Your task to perform on an android device: turn off airplane mode Image 0: 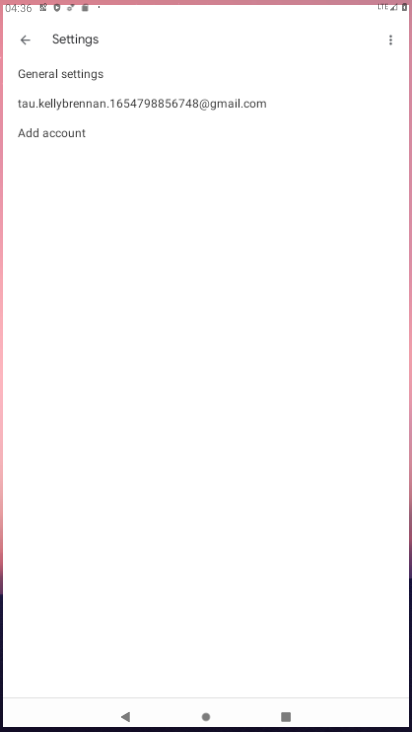
Step 0: drag from (242, 721) to (255, 138)
Your task to perform on an android device: turn off airplane mode Image 1: 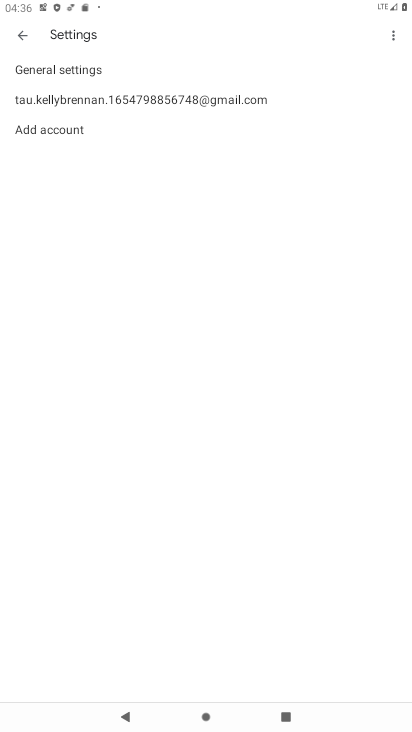
Step 1: press home button
Your task to perform on an android device: turn off airplane mode Image 2: 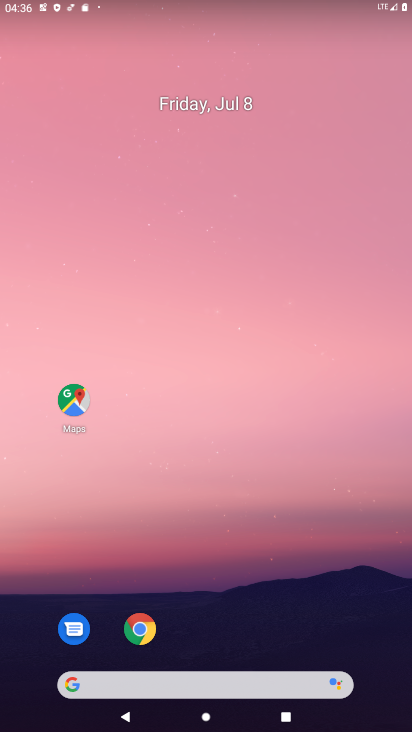
Step 2: drag from (240, 717) to (236, 157)
Your task to perform on an android device: turn off airplane mode Image 3: 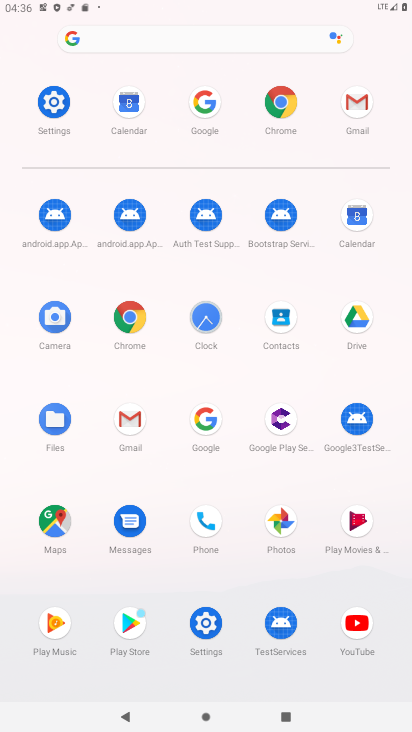
Step 3: click (55, 100)
Your task to perform on an android device: turn off airplane mode Image 4: 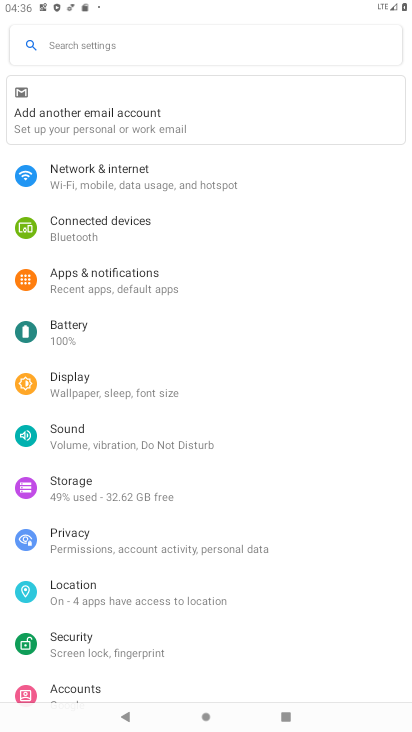
Step 4: click (80, 168)
Your task to perform on an android device: turn off airplane mode Image 5: 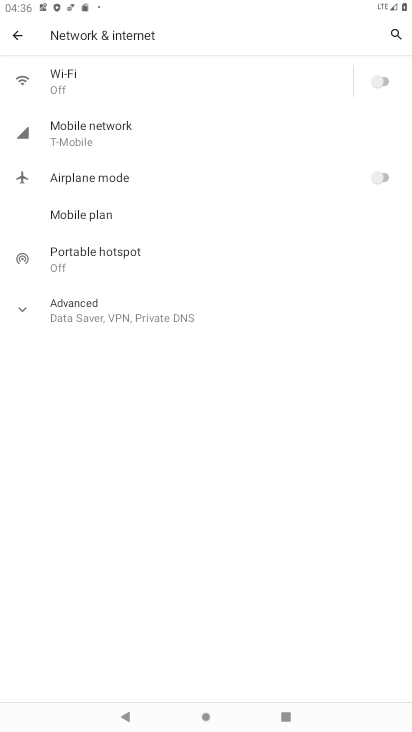
Step 5: task complete